Your task to perform on an android device: What's the weather? Image 0: 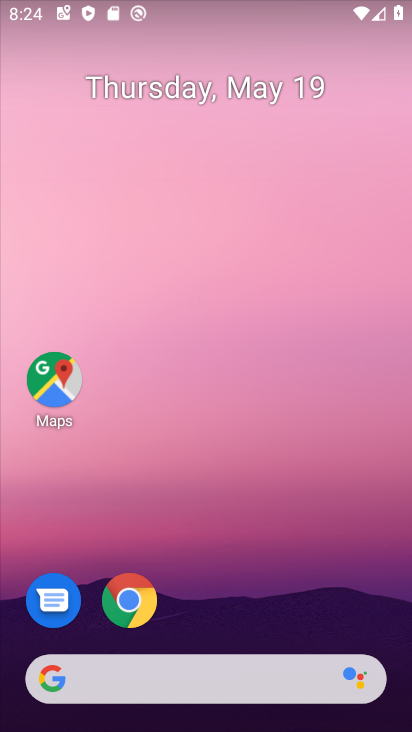
Step 0: click (103, 684)
Your task to perform on an android device: What's the weather? Image 1: 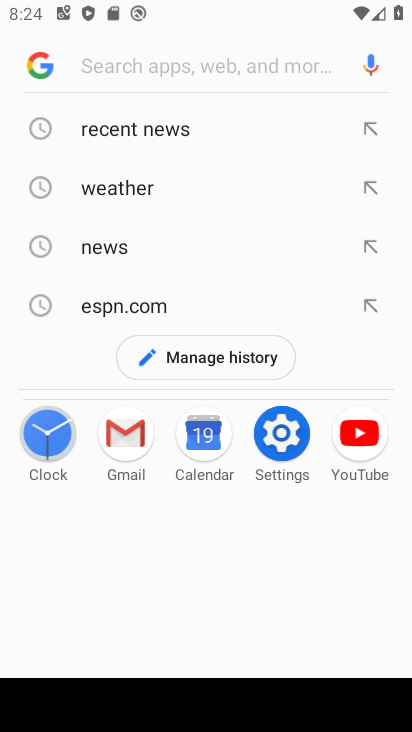
Step 1: click (116, 182)
Your task to perform on an android device: What's the weather? Image 2: 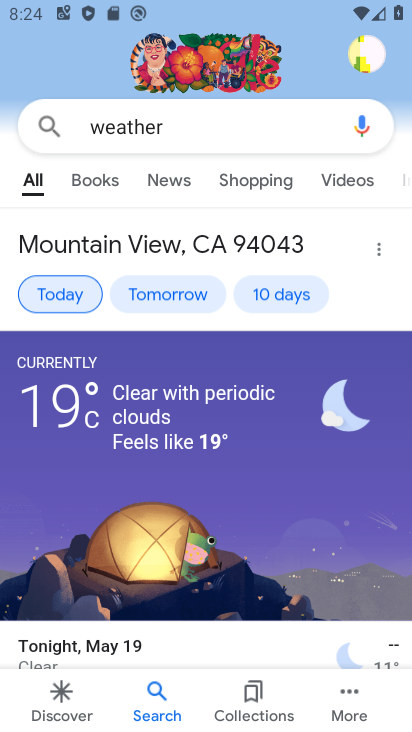
Step 2: task complete